Your task to perform on an android device: When is my next meeting? Image 0: 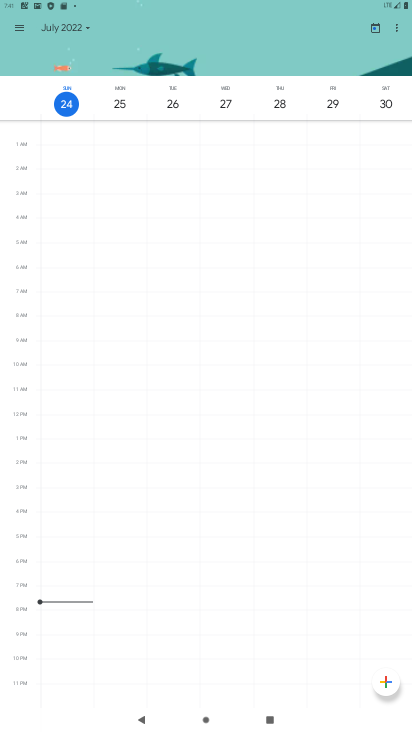
Step 0: press home button
Your task to perform on an android device: When is my next meeting? Image 1: 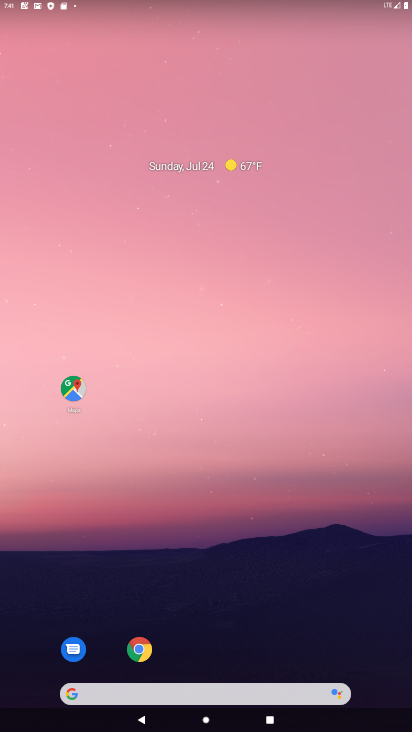
Step 1: drag from (205, 677) to (219, 182)
Your task to perform on an android device: When is my next meeting? Image 2: 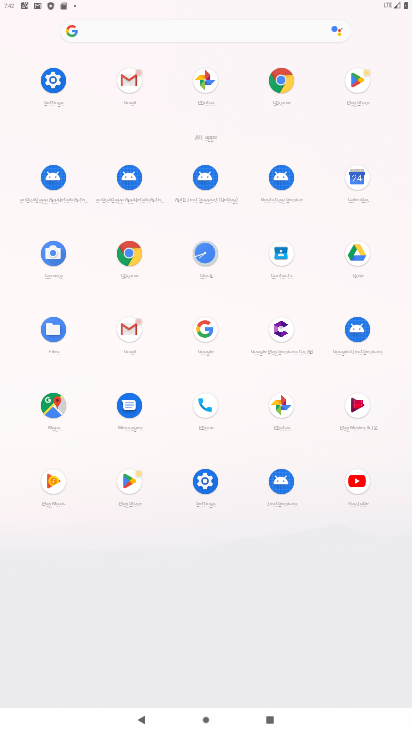
Step 2: click (357, 176)
Your task to perform on an android device: When is my next meeting? Image 3: 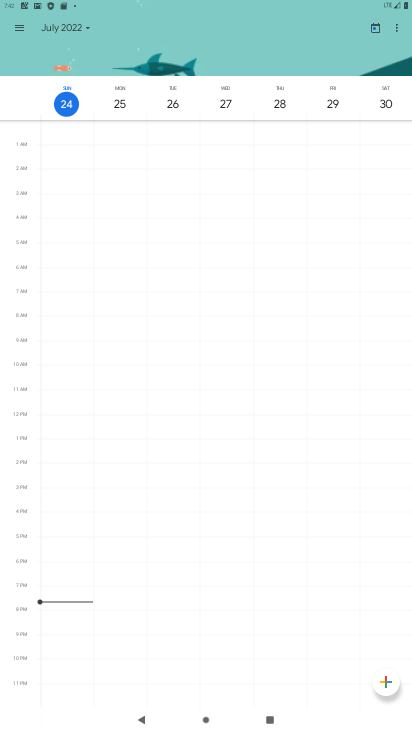
Step 3: task complete